Your task to perform on an android device: What's on my calendar today? Image 0: 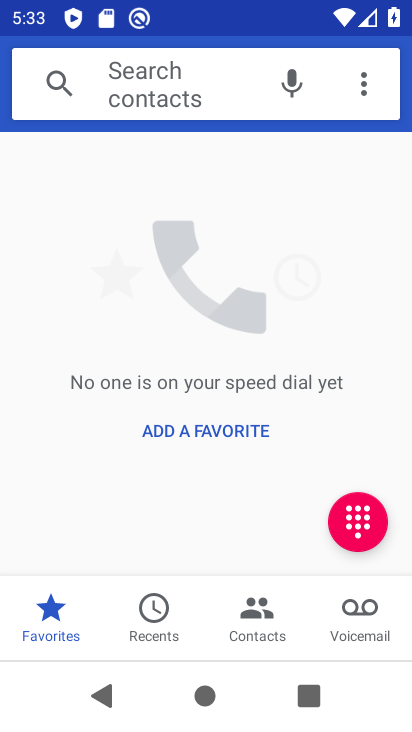
Step 0: press home button
Your task to perform on an android device: What's on my calendar today? Image 1: 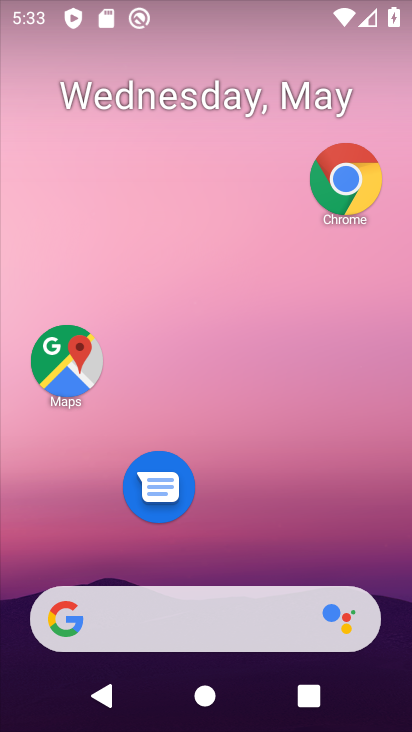
Step 1: drag from (250, 530) to (247, 330)
Your task to perform on an android device: What's on my calendar today? Image 2: 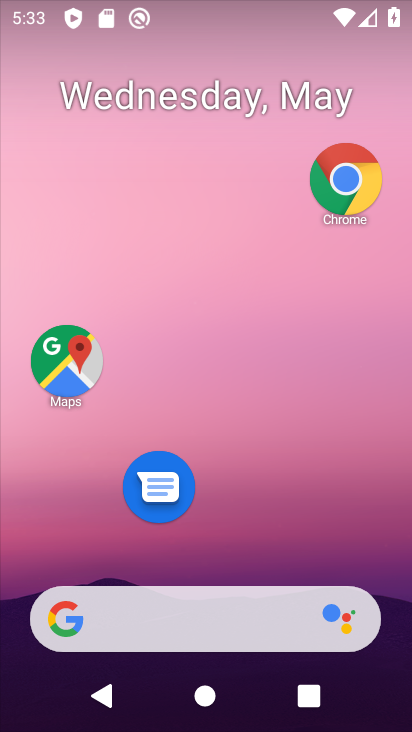
Step 2: drag from (230, 547) to (229, 151)
Your task to perform on an android device: What's on my calendar today? Image 3: 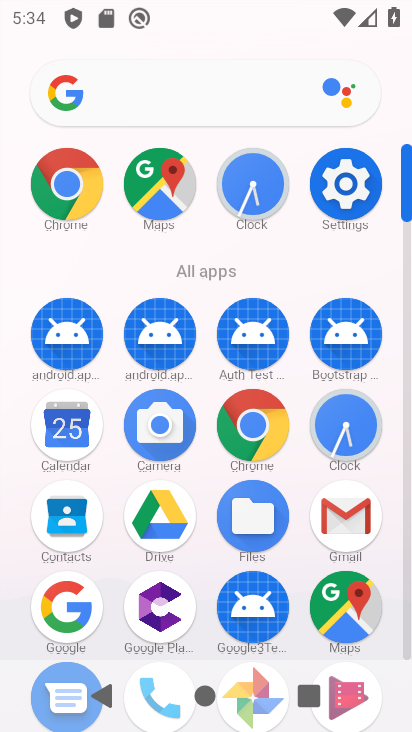
Step 3: drag from (190, 653) to (248, 276)
Your task to perform on an android device: What's on my calendar today? Image 4: 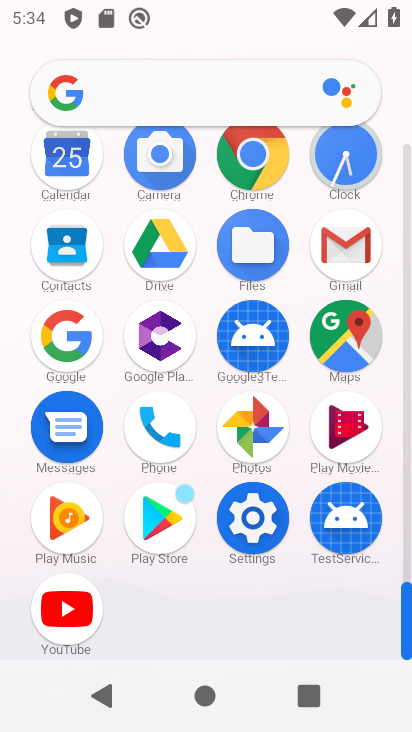
Step 4: drag from (311, 220) to (263, 507)
Your task to perform on an android device: What's on my calendar today? Image 5: 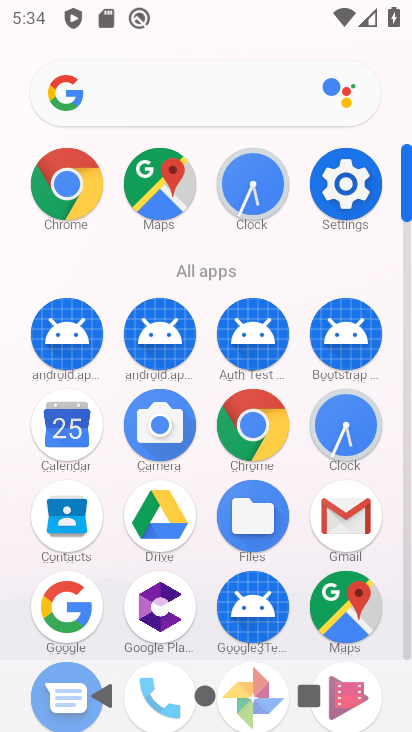
Step 5: click (80, 465)
Your task to perform on an android device: What's on my calendar today? Image 6: 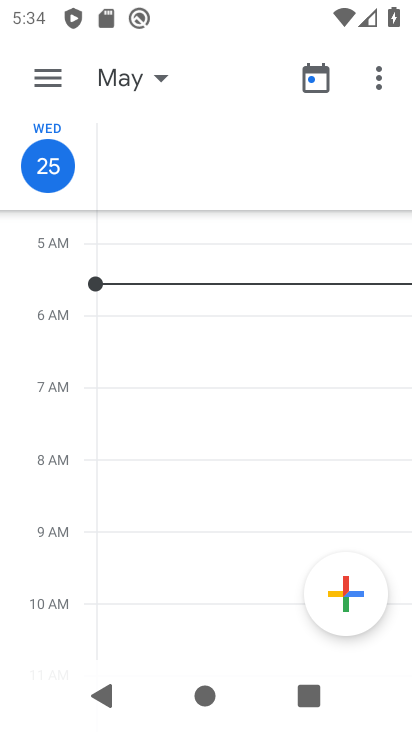
Step 6: click (112, 88)
Your task to perform on an android device: What's on my calendar today? Image 7: 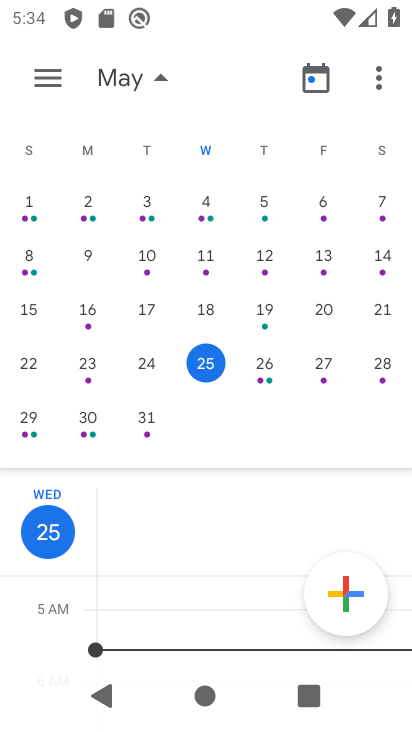
Step 7: click (39, 78)
Your task to perform on an android device: What's on my calendar today? Image 8: 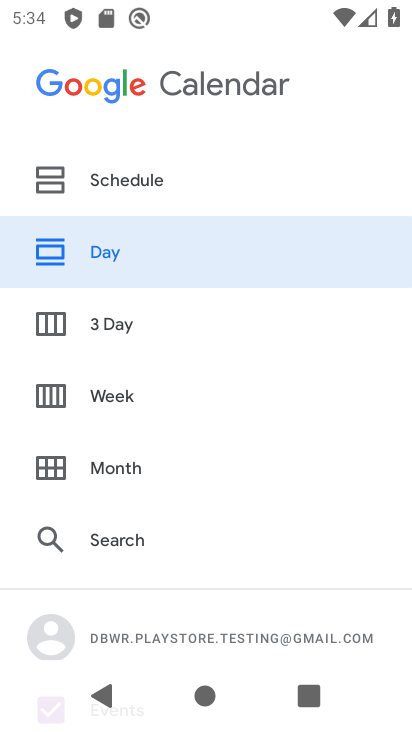
Step 8: click (110, 185)
Your task to perform on an android device: What's on my calendar today? Image 9: 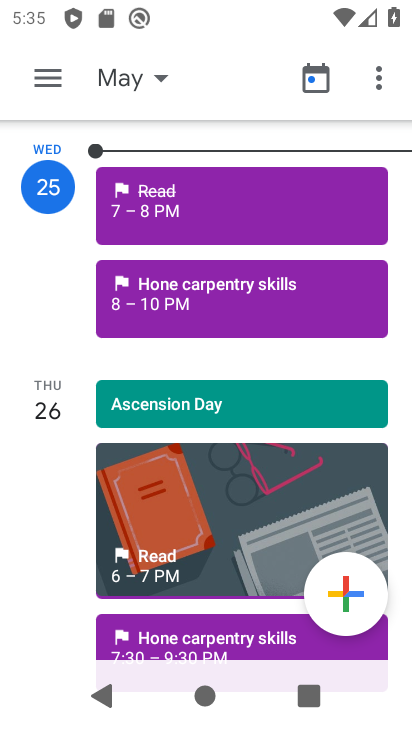
Step 9: task complete